Your task to perform on an android device: Go to Google maps Image 0: 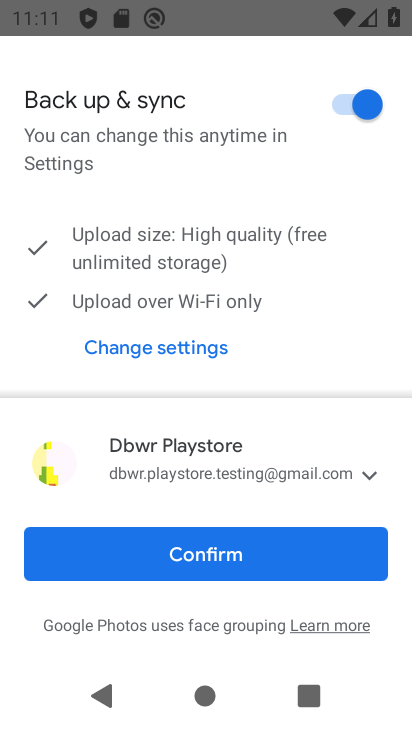
Step 0: press home button
Your task to perform on an android device: Go to Google maps Image 1: 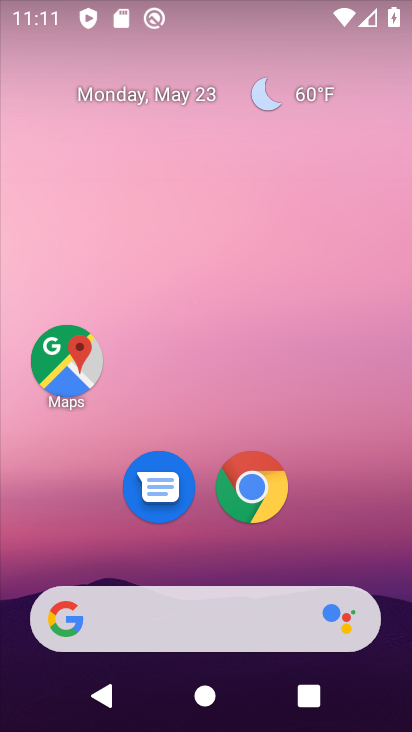
Step 1: click (69, 381)
Your task to perform on an android device: Go to Google maps Image 2: 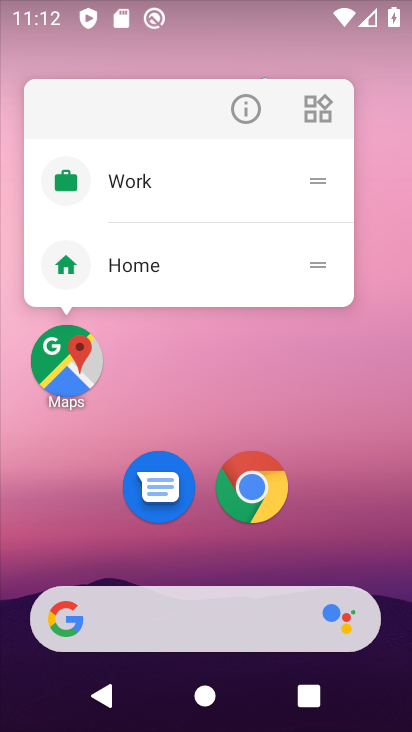
Step 2: click (67, 377)
Your task to perform on an android device: Go to Google maps Image 3: 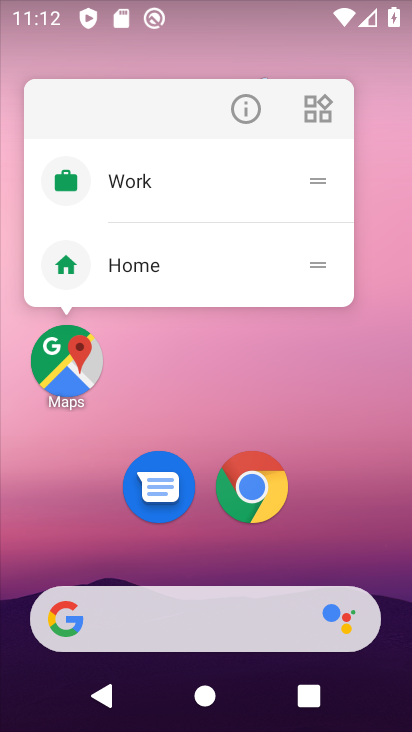
Step 3: click (60, 387)
Your task to perform on an android device: Go to Google maps Image 4: 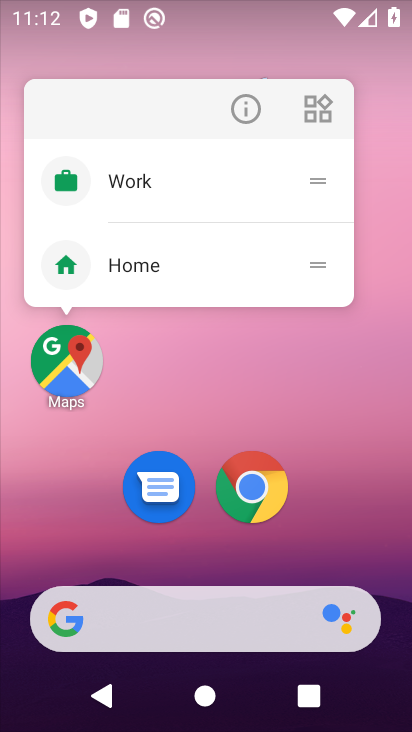
Step 4: click (58, 370)
Your task to perform on an android device: Go to Google maps Image 5: 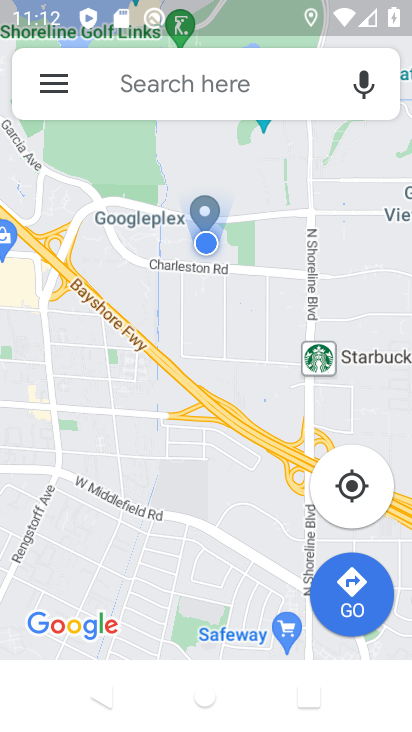
Step 5: task complete